Your task to perform on an android device: see creations saved in the google photos Image 0: 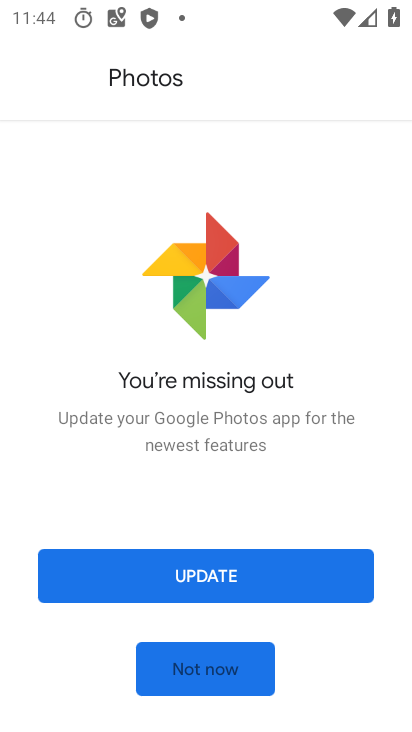
Step 0: press home button
Your task to perform on an android device: see creations saved in the google photos Image 1: 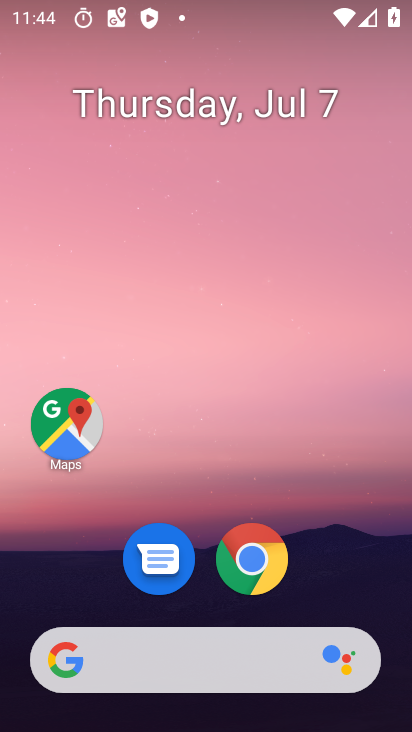
Step 1: drag from (349, 564) to (354, 85)
Your task to perform on an android device: see creations saved in the google photos Image 2: 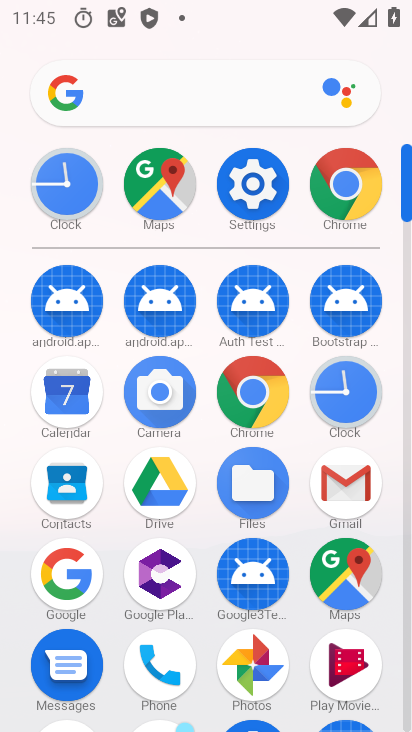
Step 2: click (248, 669)
Your task to perform on an android device: see creations saved in the google photos Image 3: 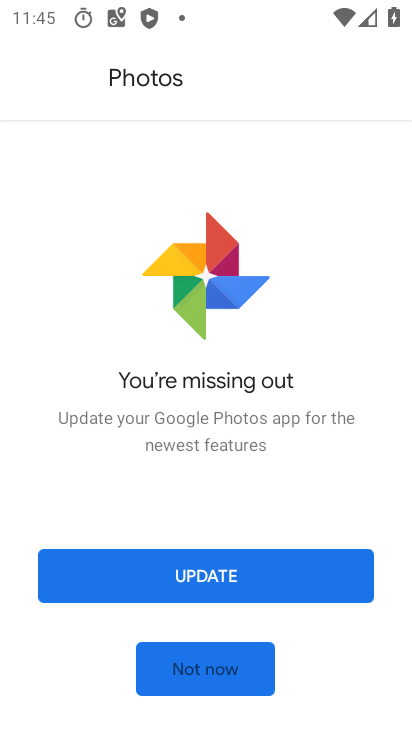
Step 3: click (281, 556)
Your task to perform on an android device: see creations saved in the google photos Image 4: 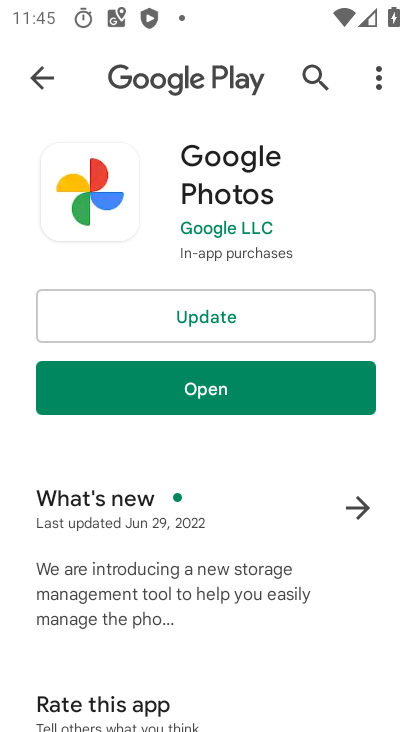
Step 4: click (230, 315)
Your task to perform on an android device: see creations saved in the google photos Image 5: 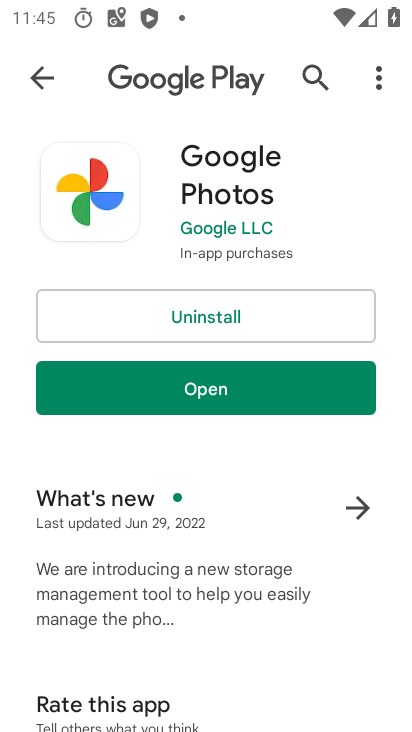
Step 5: click (281, 402)
Your task to perform on an android device: see creations saved in the google photos Image 6: 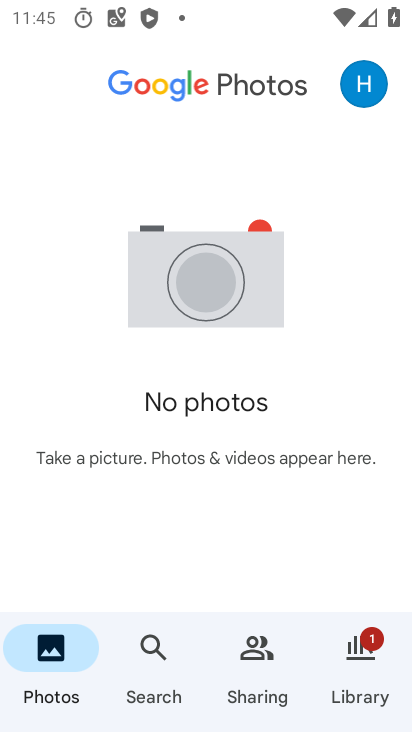
Step 6: click (151, 649)
Your task to perform on an android device: see creations saved in the google photos Image 7: 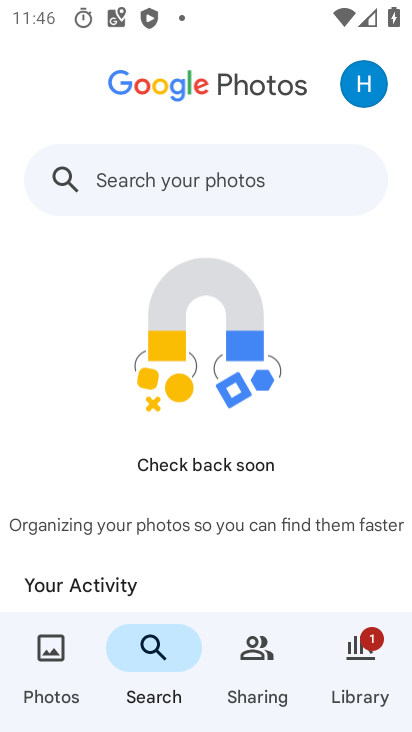
Step 7: click (141, 171)
Your task to perform on an android device: see creations saved in the google photos Image 8: 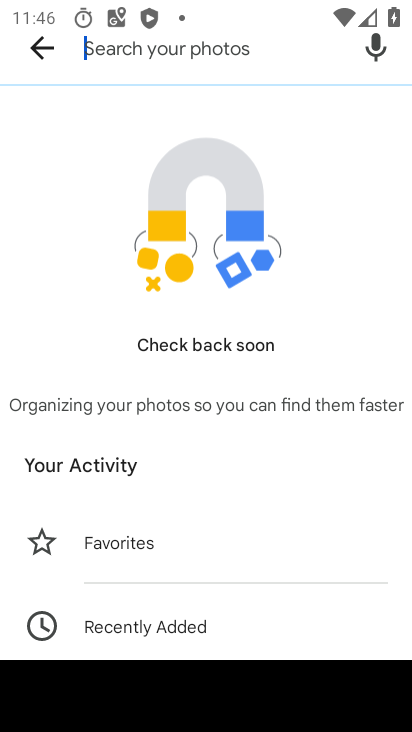
Step 8: drag from (242, 532) to (266, 312)
Your task to perform on an android device: see creations saved in the google photos Image 9: 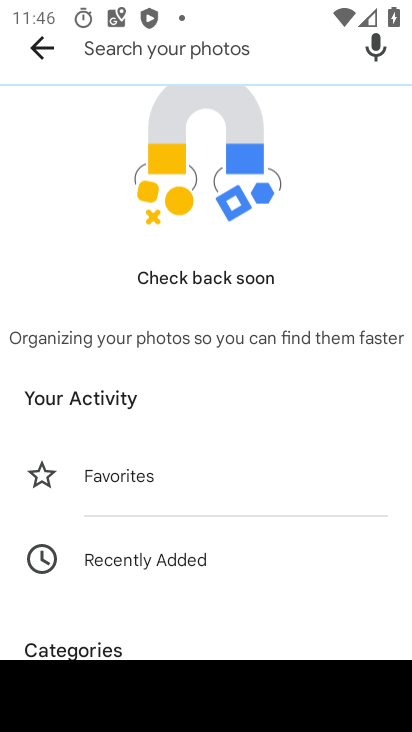
Step 9: drag from (269, 549) to (292, 316)
Your task to perform on an android device: see creations saved in the google photos Image 10: 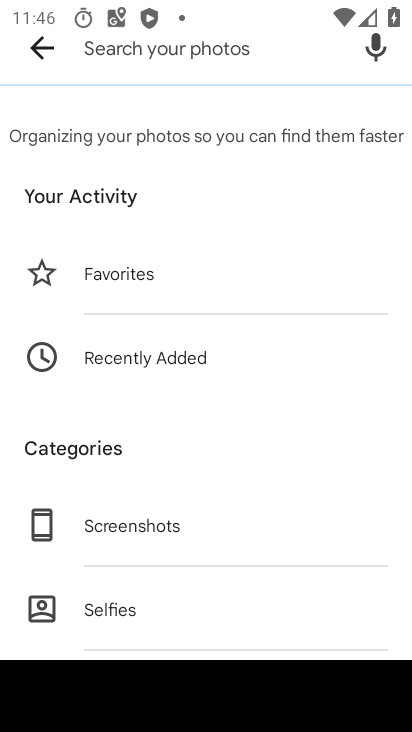
Step 10: drag from (290, 519) to (301, 301)
Your task to perform on an android device: see creations saved in the google photos Image 11: 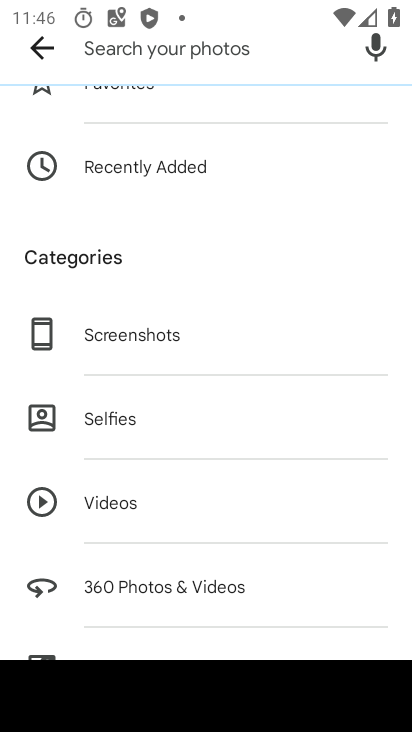
Step 11: drag from (288, 490) to (287, 269)
Your task to perform on an android device: see creations saved in the google photos Image 12: 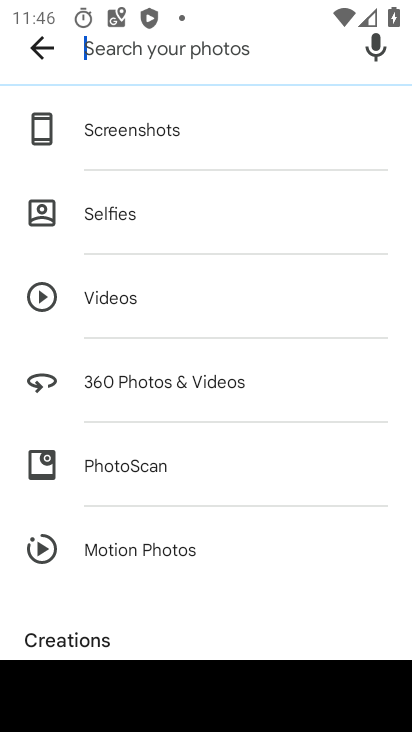
Step 12: drag from (283, 537) to (280, 292)
Your task to perform on an android device: see creations saved in the google photos Image 13: 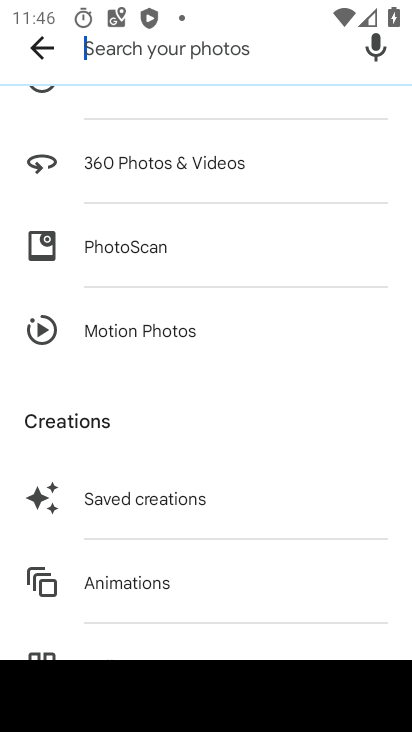
Step 13: click (177, 503)
Your task to perform on an android device: see creations saved in the google photos Image 14: 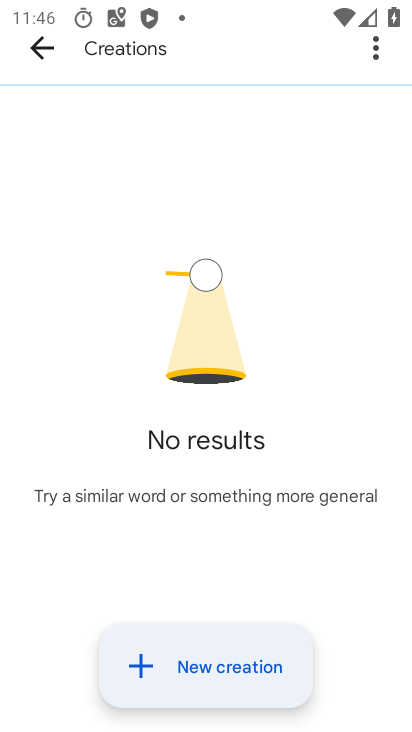
Step 14: task complete